Your task to perform on an android device: open app "Adobe Express: Graphic Design" Image 0: 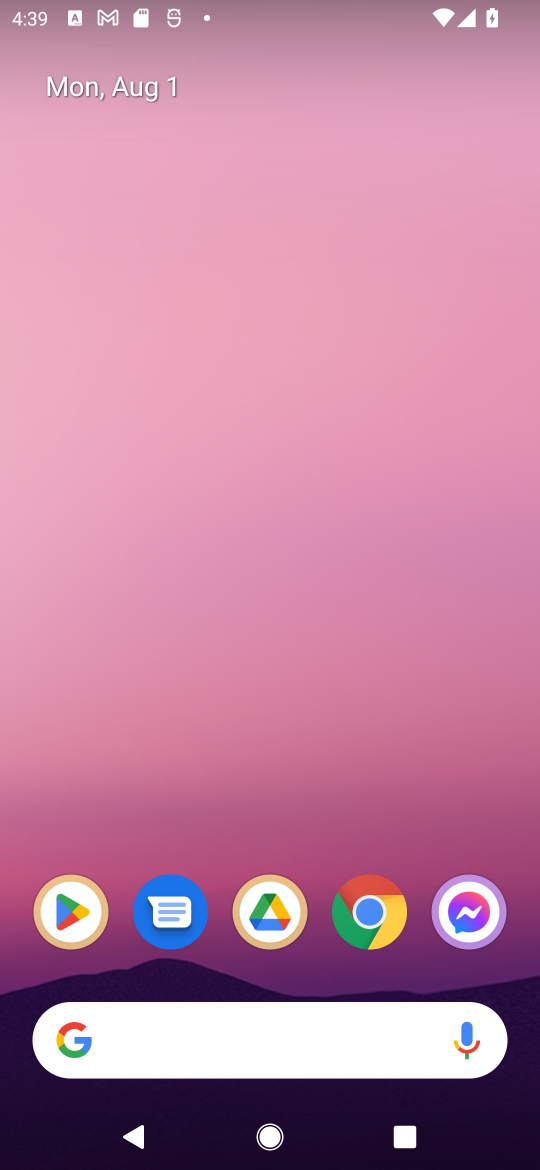
Step 0: click (88, 921)
Your task to perform on an android device: open app "Adobe Express: Graphic Design" Image 1: 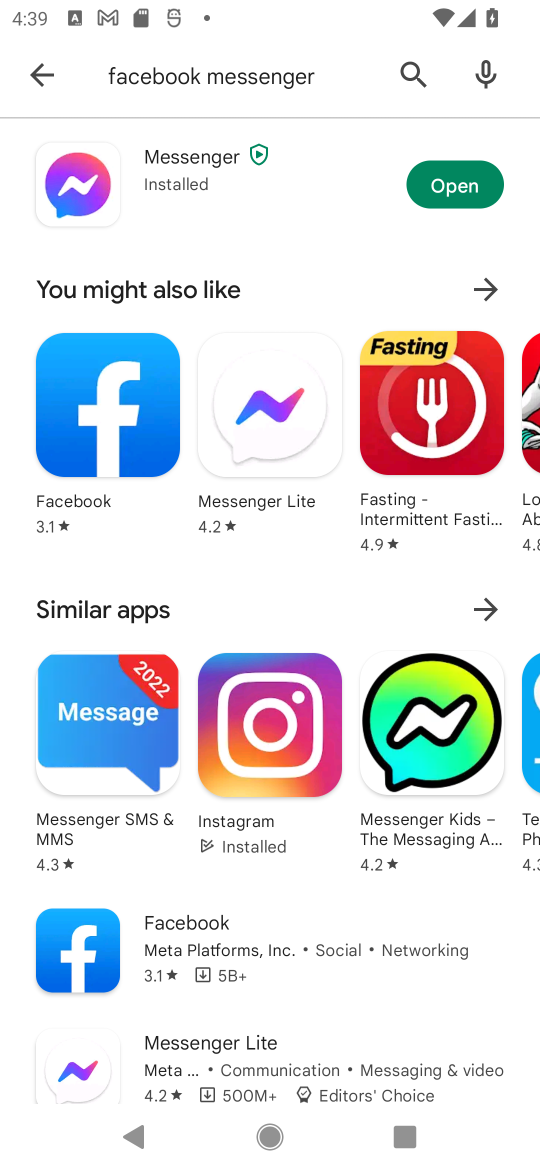
Step 1: click (414, 56)
Your task to perform on an android device: open app "Adobe Express: Graphic Design" Image 2: 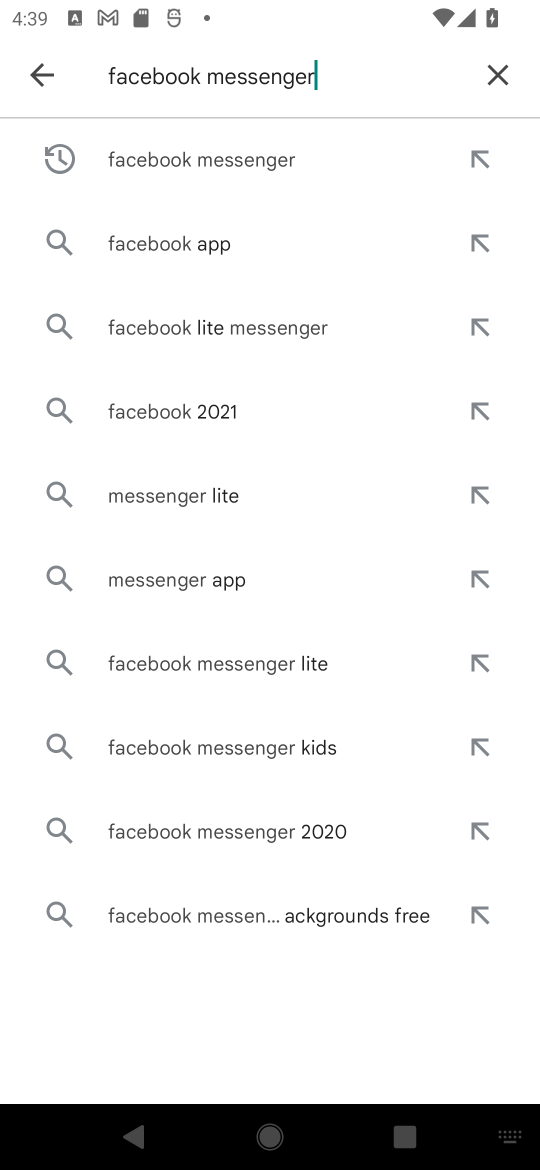
Step 2: click (489, 84)
Your task to perform on an android device: open app "Adobe Express: Graphic Design" Image 3: 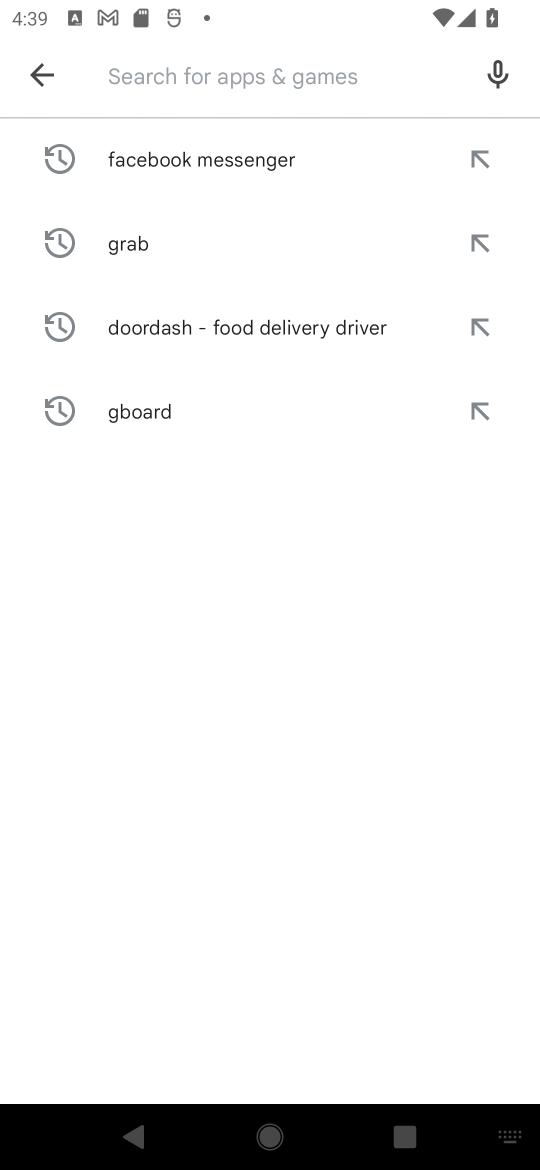
Step 3: type "Adobe Express: Graphic Design"
Your task to perform on an android device: open app "Adobe Express: Graphic Design" Image 4: 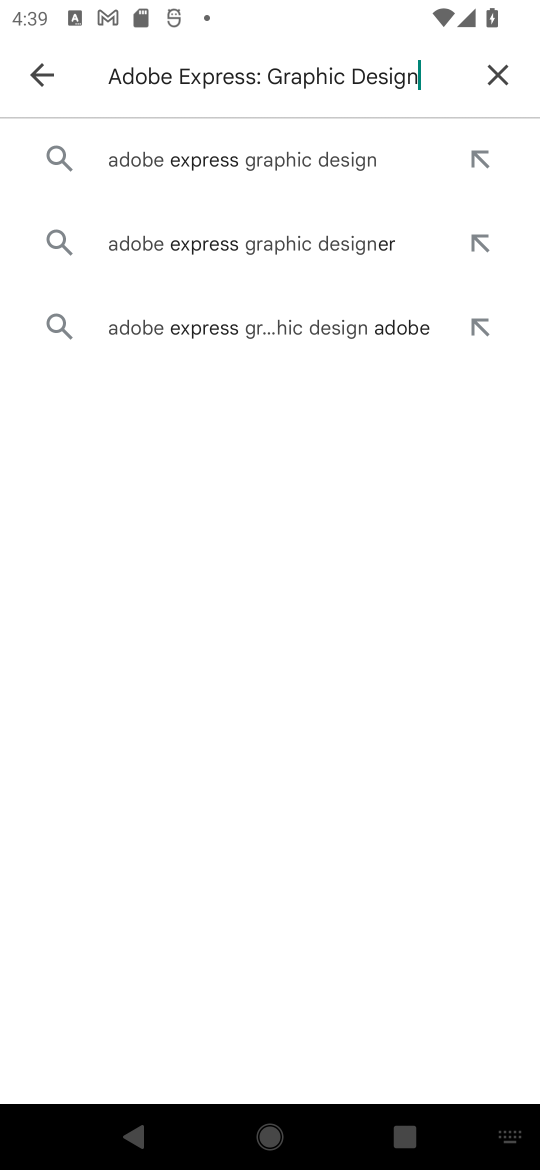
Step 4: click (202, 168)
Your task to perform on an android device: open app "Adobe Express: Graphic Design" Image 5: 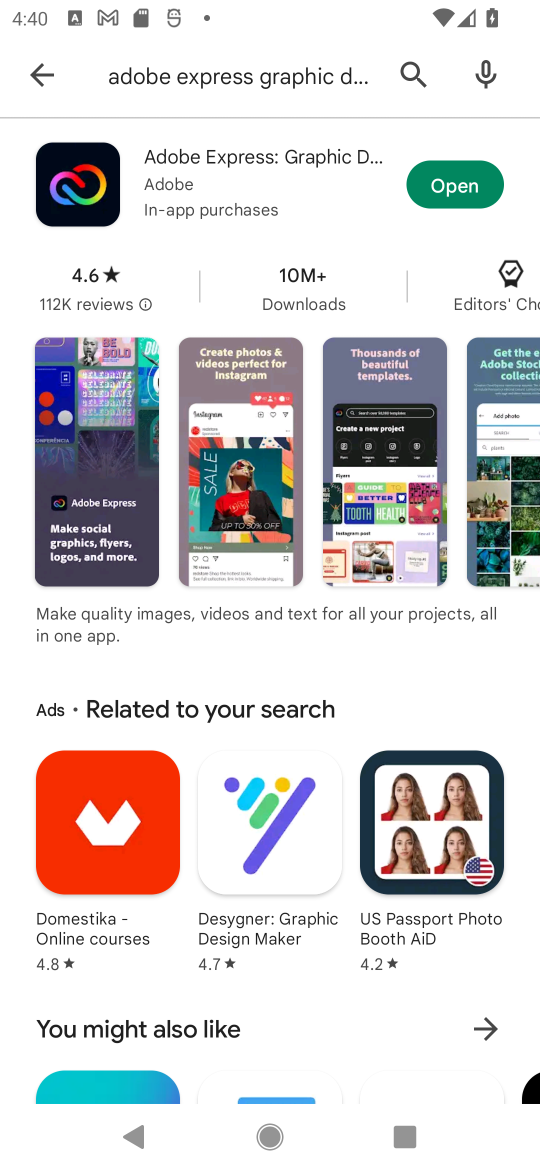
Step 5: click (483, 193)
Your task to perform on an android device: open app "Adobe Express: Graphic Design" Image 6: 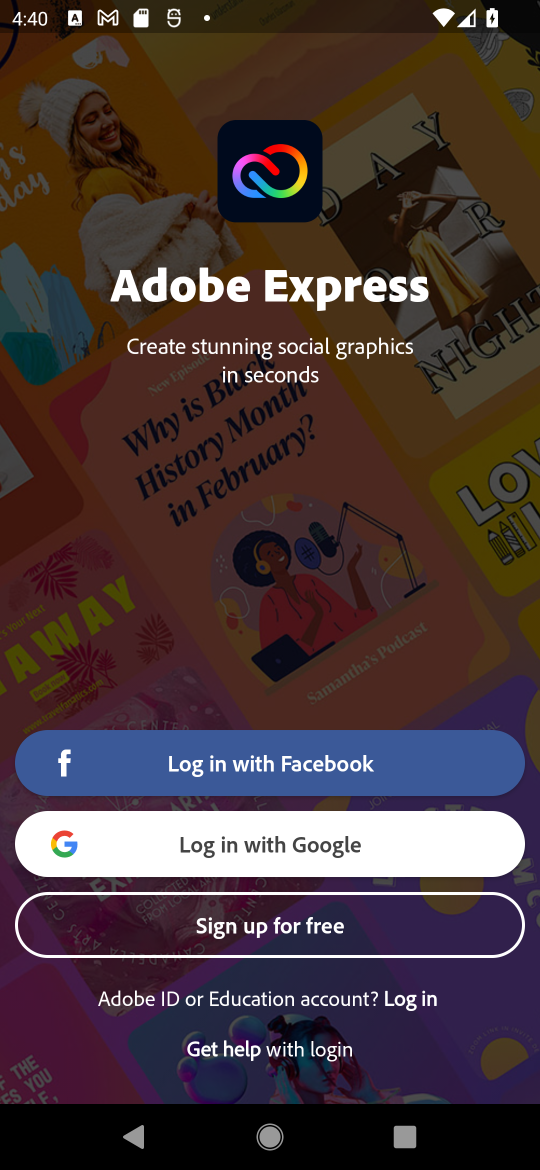
Step 6: task complete